Your task to perform on an android device: Go to Google maps Image 0: 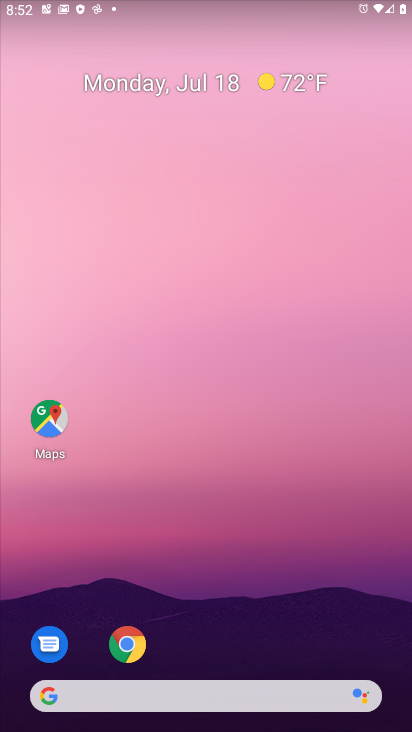
Step 0: drag from (382, 650) to (262, 85)
Your task to perform on an android device: Go to Google maps Image 1: 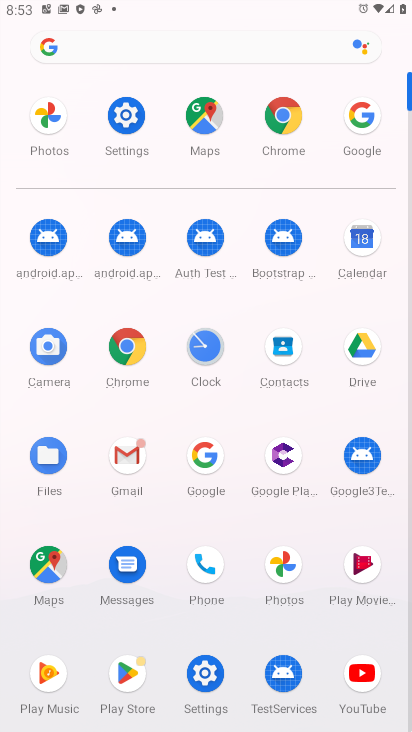
Step 1: click (50, 567)
Your task to perform on an android device: Go to Google maps Image 2: 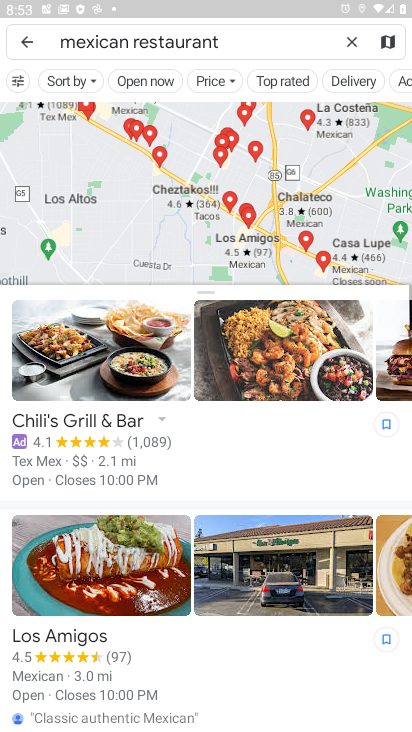
Step 2: click (351, 39)
Your task to perform on an android device: Go to Google maps Image 3: 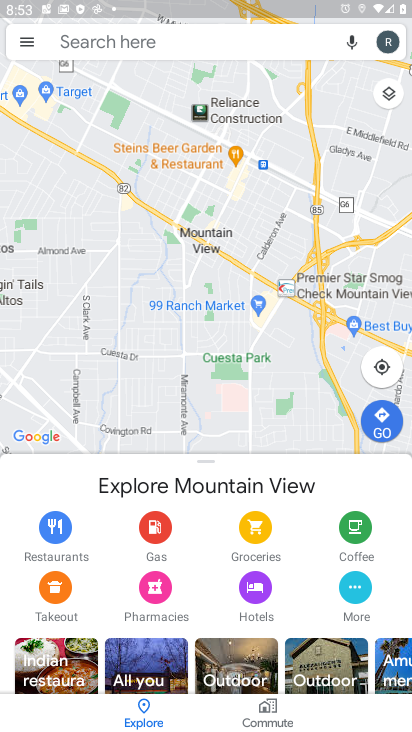
Step 3: task complete